Your task to perform on an android device: Open settings on Google Maps Image 0: 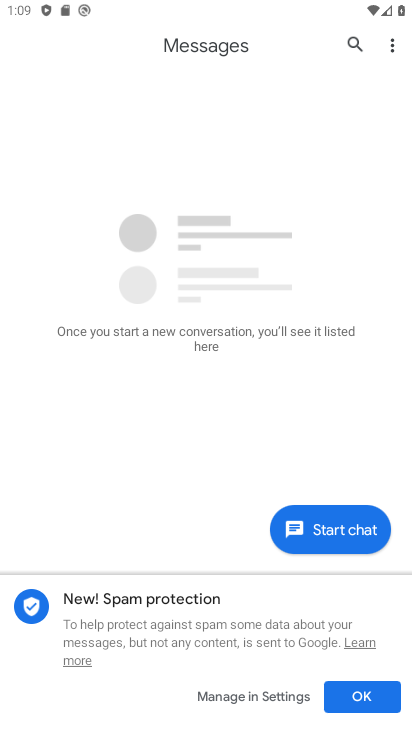
Step 0: press home button
Your task to perform on an android device: Open settings on Google Maps Image 1: 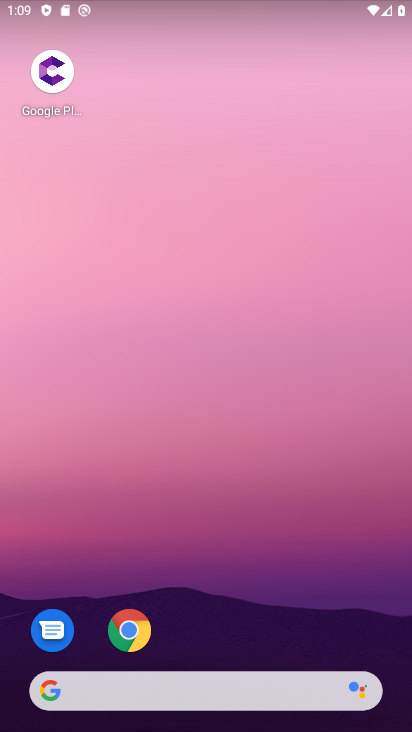
Step 1: drag from (295, 536) to (302, 1)
Your task to perform on an android device: Open settings on Google Maps Image 2: 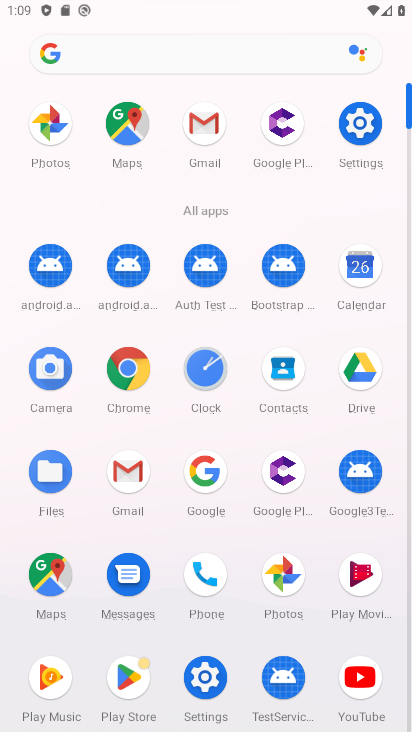
Step 2: click (51, 576)
Your task to perform on an android device: Open settings on Google Maps Image 3: 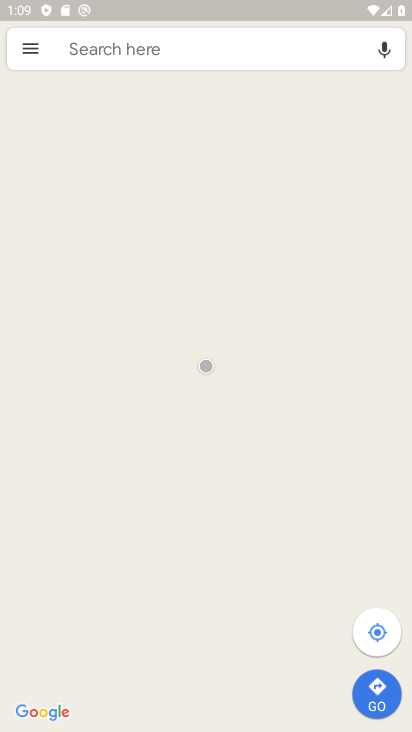
Step 3: click (27, 51)
Your task to perform on an android device: Open settings on Google Maps Image 4: 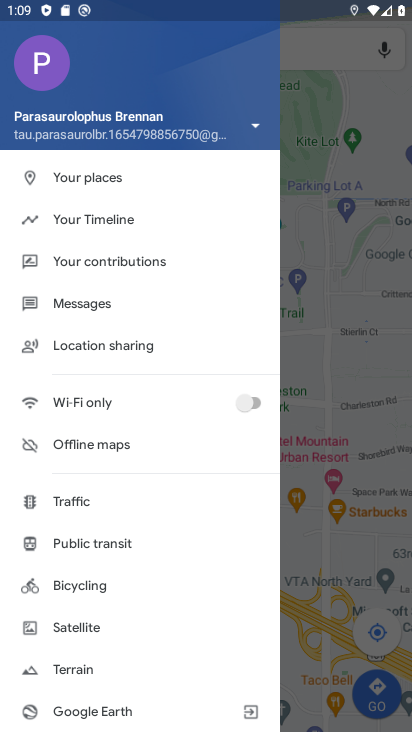
Step 4: drag from (84, 635) to (41, 322)
Your task to perform on an android device: Open settings on Google Maps Image 5: 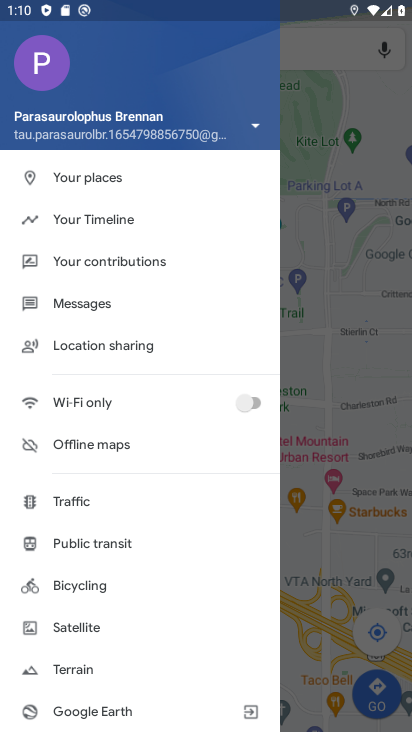
Step 5: drag from (59, 679) to (33, 330)
Your task to perform on an android device: Open settings on Google Maps Image 6: 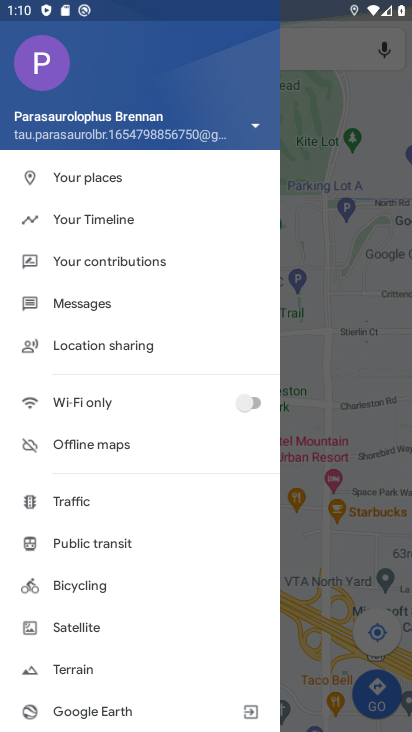
Step 6: drag from (81, 692) to (40, 155)
Your task to perform on an android device: Open settings on Google Maps Image 7: 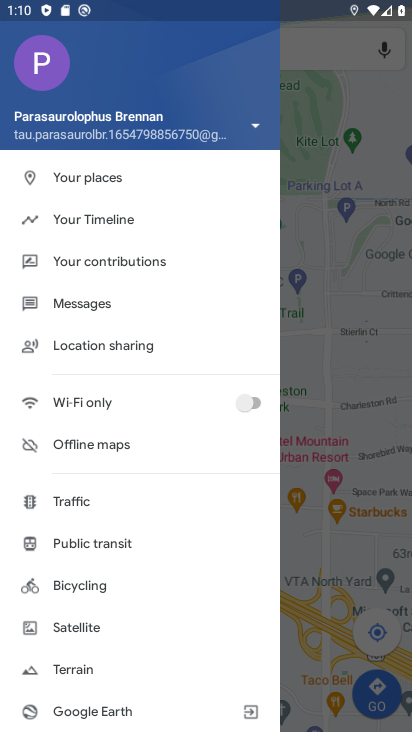
Step 7: drag from (122, 553) to (154, 135)
Your task to perform on an android device: Open settings on Google Maps Image 8: 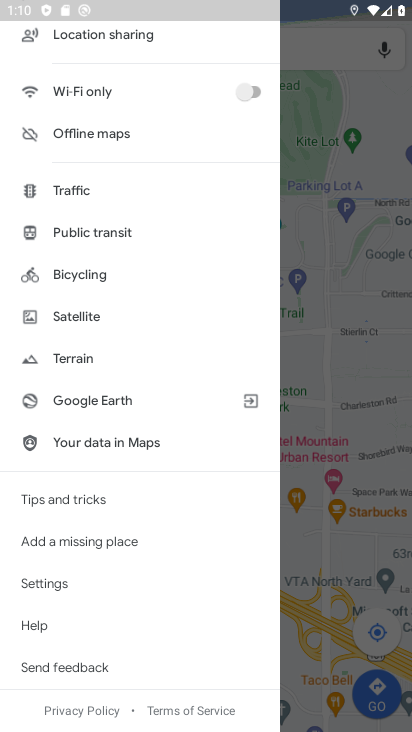
Step 8: click (29, 590)
Your task to perform on an android device: Open settings on Google Maps Image 9: 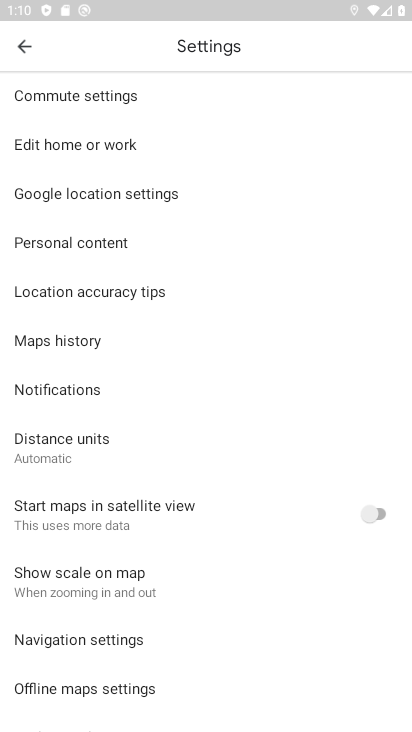
Step 9: task complete